Your task to perform on an android device: Go to display settings Image 0: 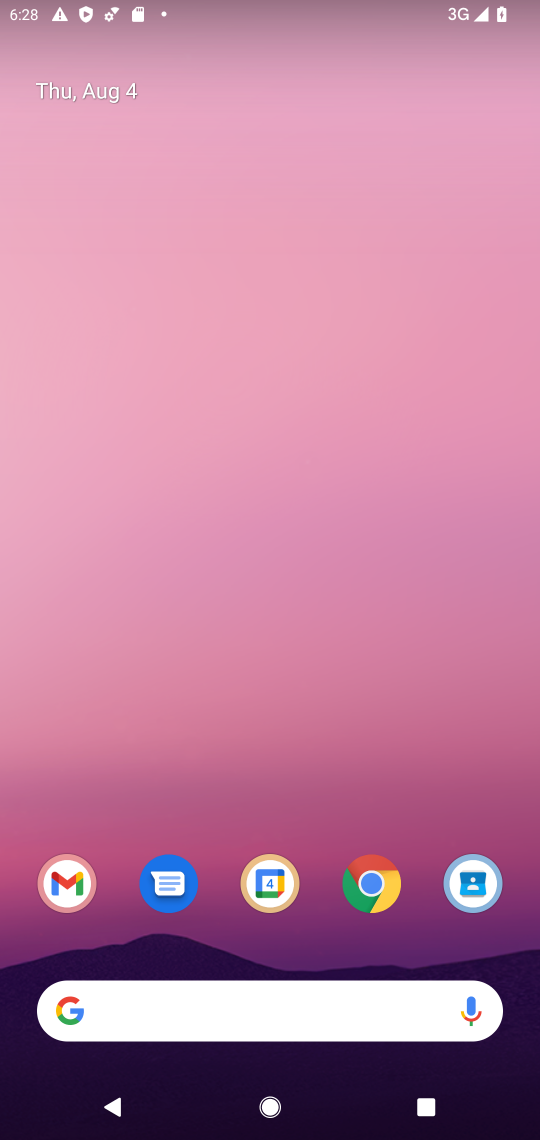
Step 0: drag from (323, 817) to (226, 269)
Your task to perform on an android device: Go to display settings Image 1: 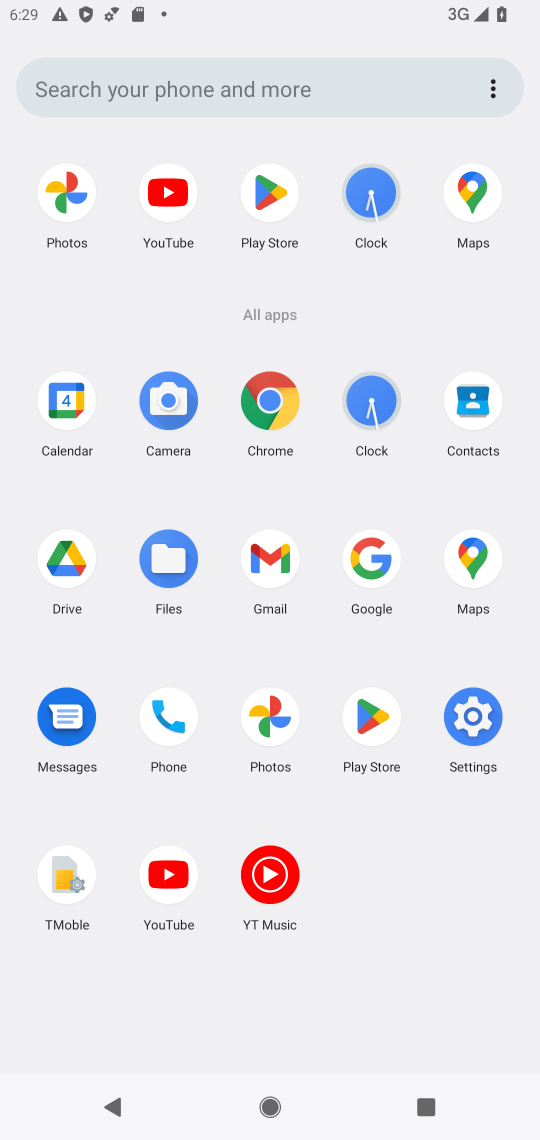
Step 1: click (484, 735)
Your task to perform on an android device: Go to display settings Image 2: 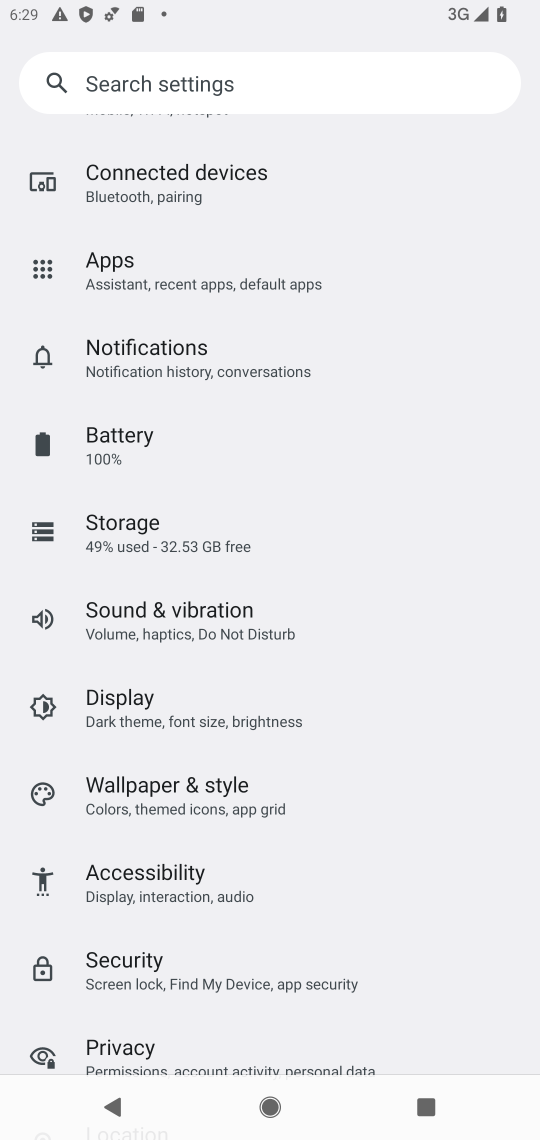
Step 2: click (273, 709)
Your task to perform on an android device: Go to display settings Image 3: 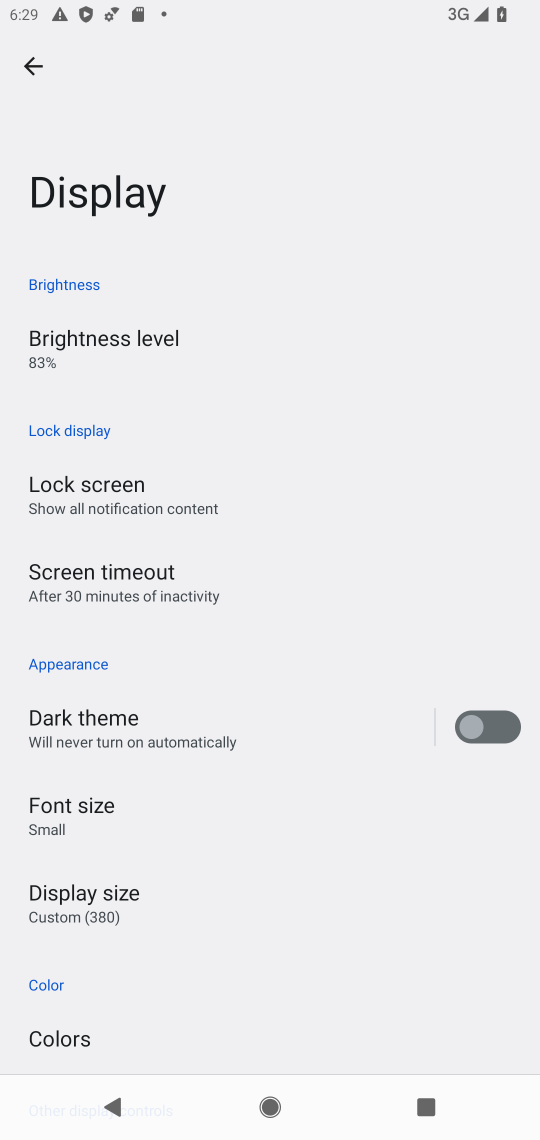
Step 3: task complete